Your task to perform on an android device: toggle airplane mode Image 0: 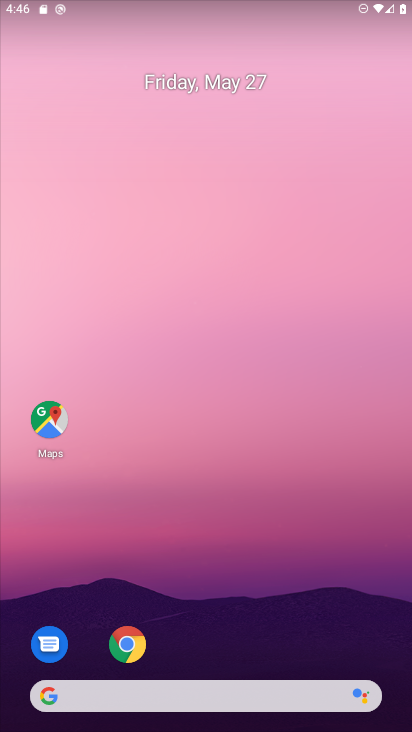
Step 0: drag from (323, 103) to (316, 519)
Your task to perform on an android device: toggle airplane mode Image 1: 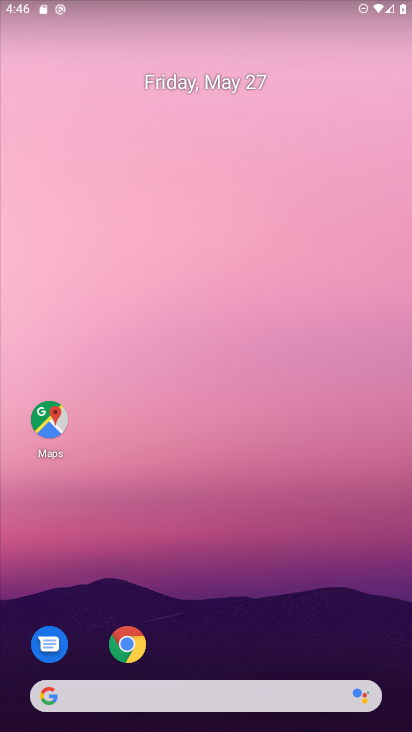
Step 1: drag from (332, 13) to (321, 629)
Your task to perform on an android device: toggle airplane mode Image 2: 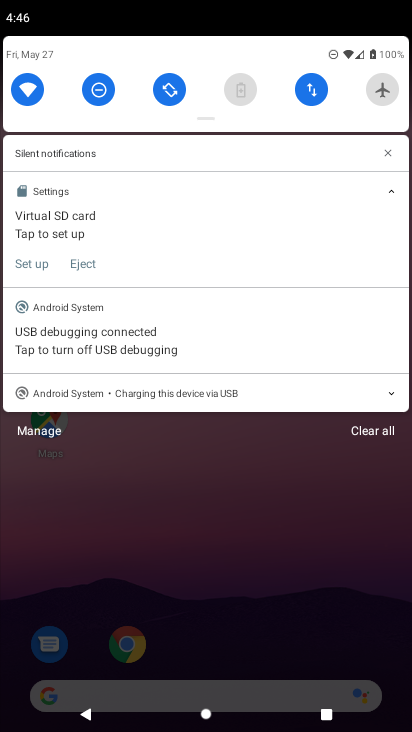
Step 2: click (383, 96)
Your task to perform on an android device: toggle airplane mode Image 3: 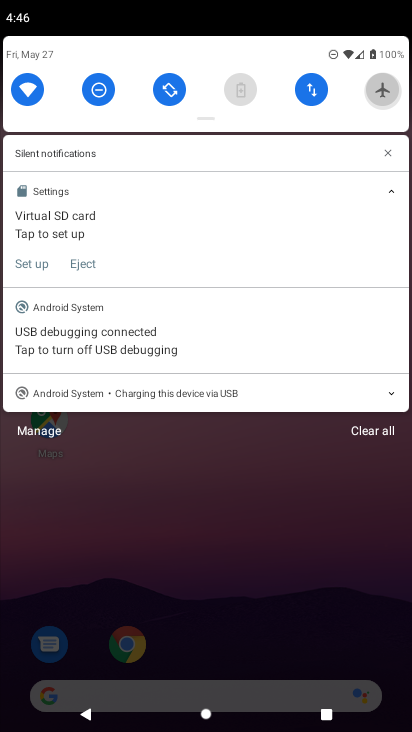
Step 3: click (383, 96)
Your task to perform on an android device: toggle airplane mode Image 4: 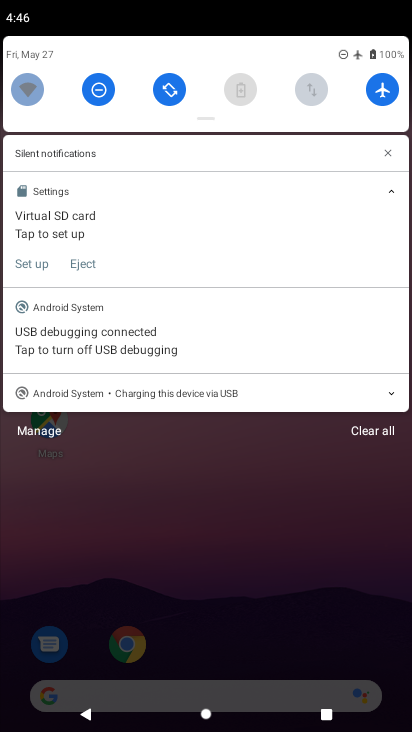
Step 4: click (383, 96)
Your task to perform on an android device: toggle airplane mode Image 5: 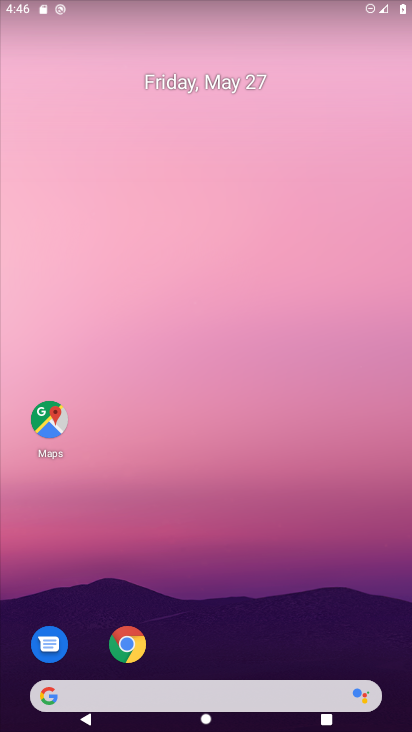
Step 5: click (383, 96)
Your task to perform on an android device: toggle airplane mode Image 6: 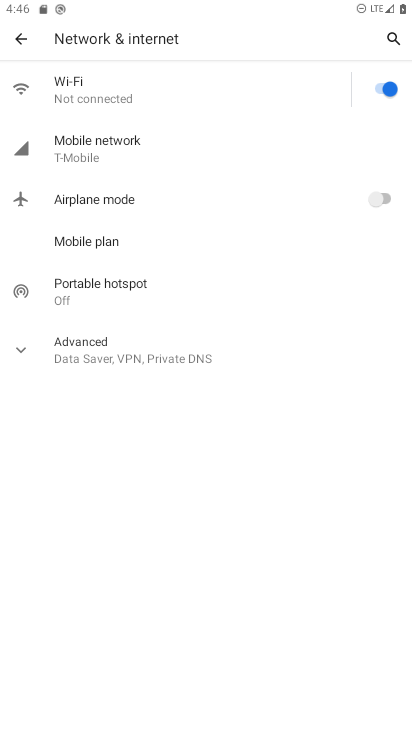
Step 6: task complete